Your task to perform on an android device: Go to battery settings Image 0: 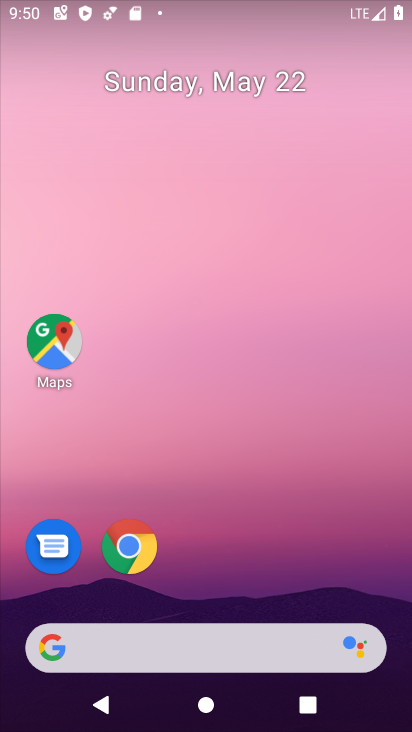
Step 0: drag from (177, 588) to (195, 141)
Your task to perform on an android device: Go to battery settings Image 1: 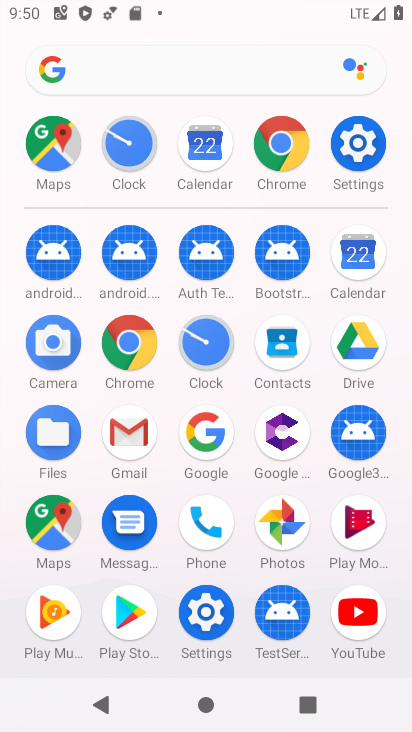
Step 1: click (202, 632)
Your task to perform on an android device: Go to battery settings Image 2: 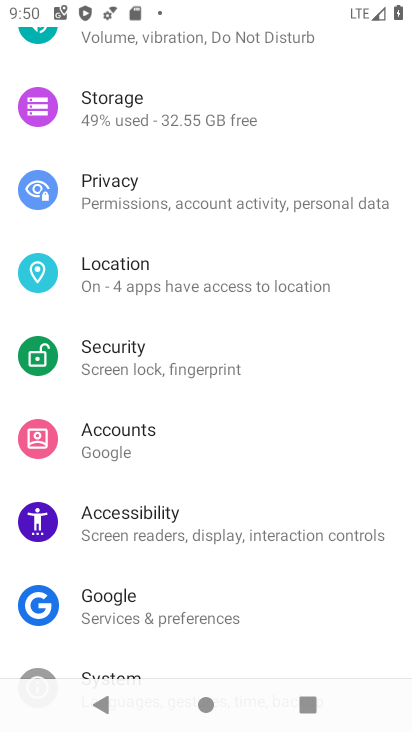
Step 2: drag from (172, 203) to (197, 621)
Your task to perform on an android device: Go to battery settings Image 3: 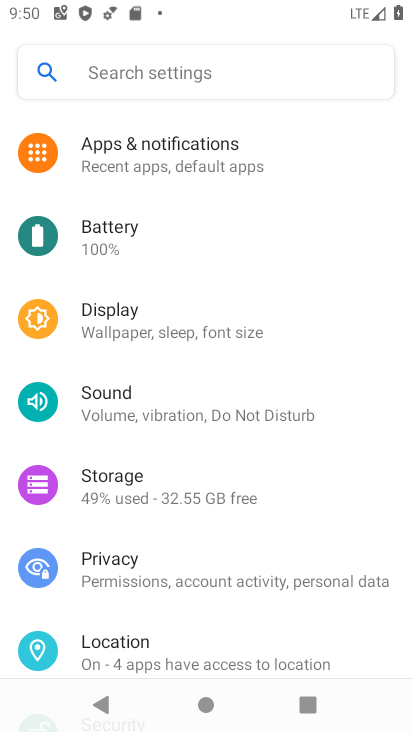
Step 3: click (131, 225)
Your task to perform on an android device: Go to battery settings Image 4: 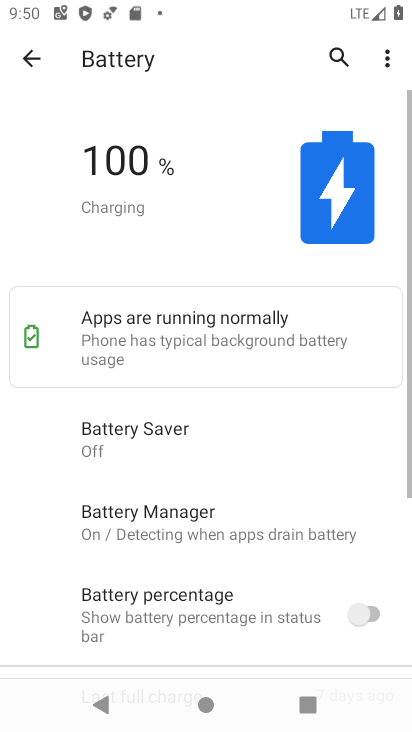
Step 4: task complete